Your task to perform on an android device: turn on the 24-hour format for clock Image 0: 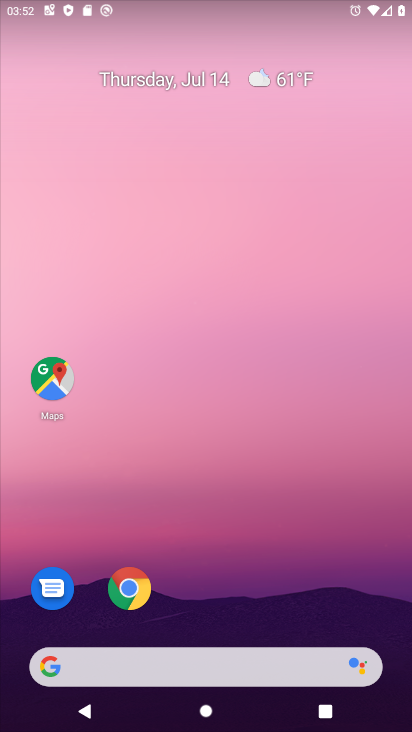
Step 0: press home button
Your task to perform on an android device: turn on the 24-hour format for clock Image 1: 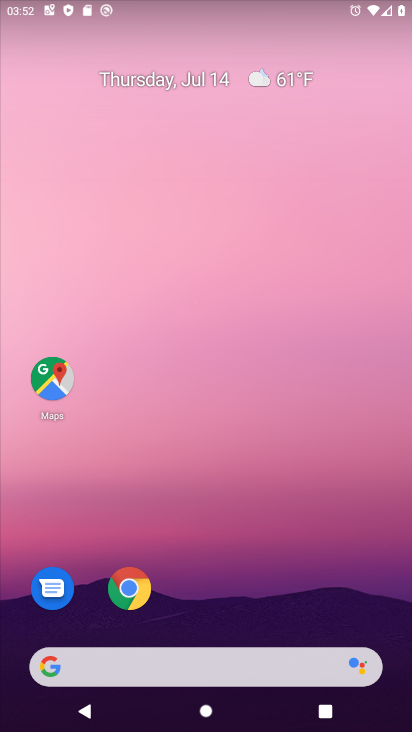
Step 1: drag from (232, 588) to (196, 95)
Your task to perform on an android device: turn on the 24-hour format for clock Image 2: 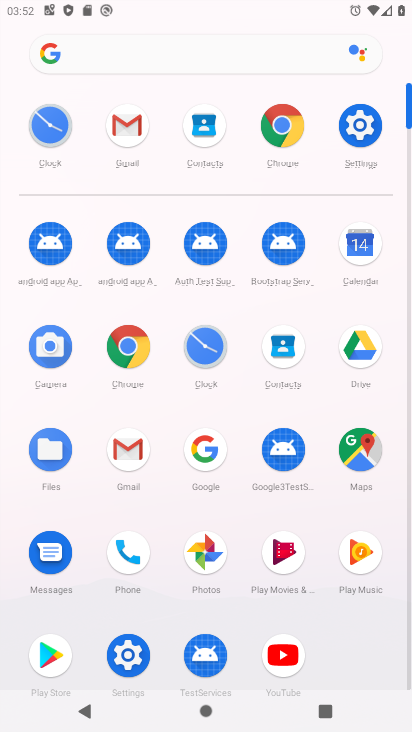
Step 2: click (45, 134)
Your task to perform on an android device: turn on the 24-hour format for clock Image 3: 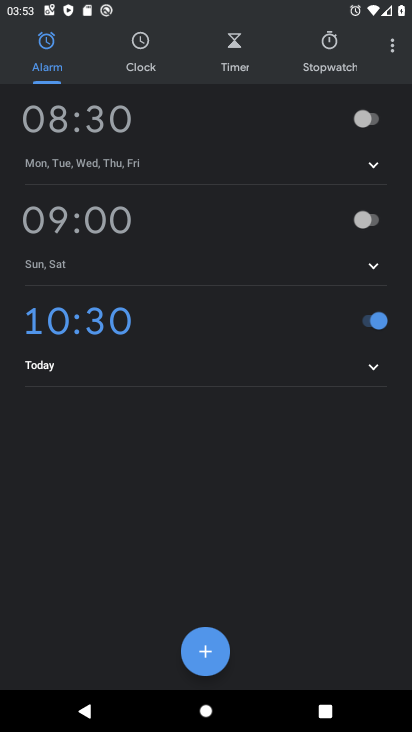
Step 3: click (395, 43)
Your task to perform on an android device: turn on the 24-hour format for clock Image 4: 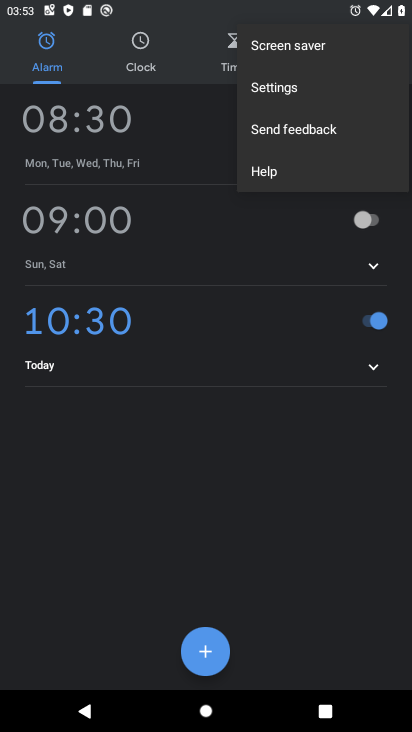
Step 4: click (287, 84)
Your task to perform on an android device: turn on the 24-hour format for clock Image 5: 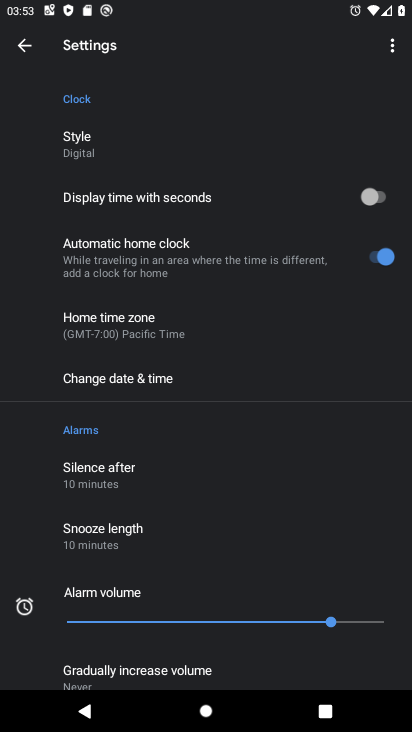
Step 5: click (121, 388)
Your task to perform on an android device: turn on the 24-hour format for clock Image 6: 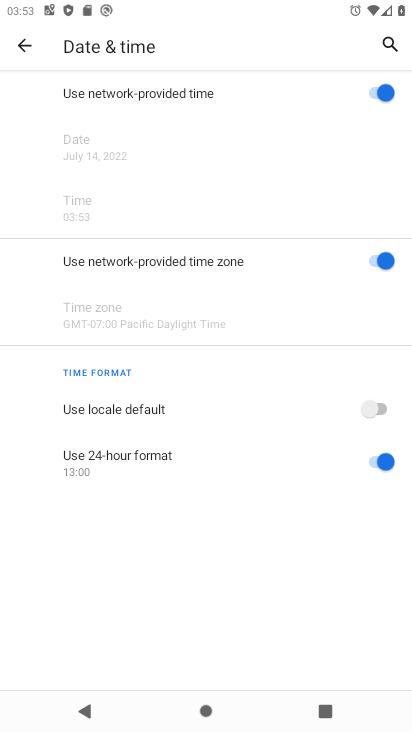
Step 6: task complete